Your task to perform on an android device: Add razer naga to the cart on amazon.com, then select checkout. Image 0: 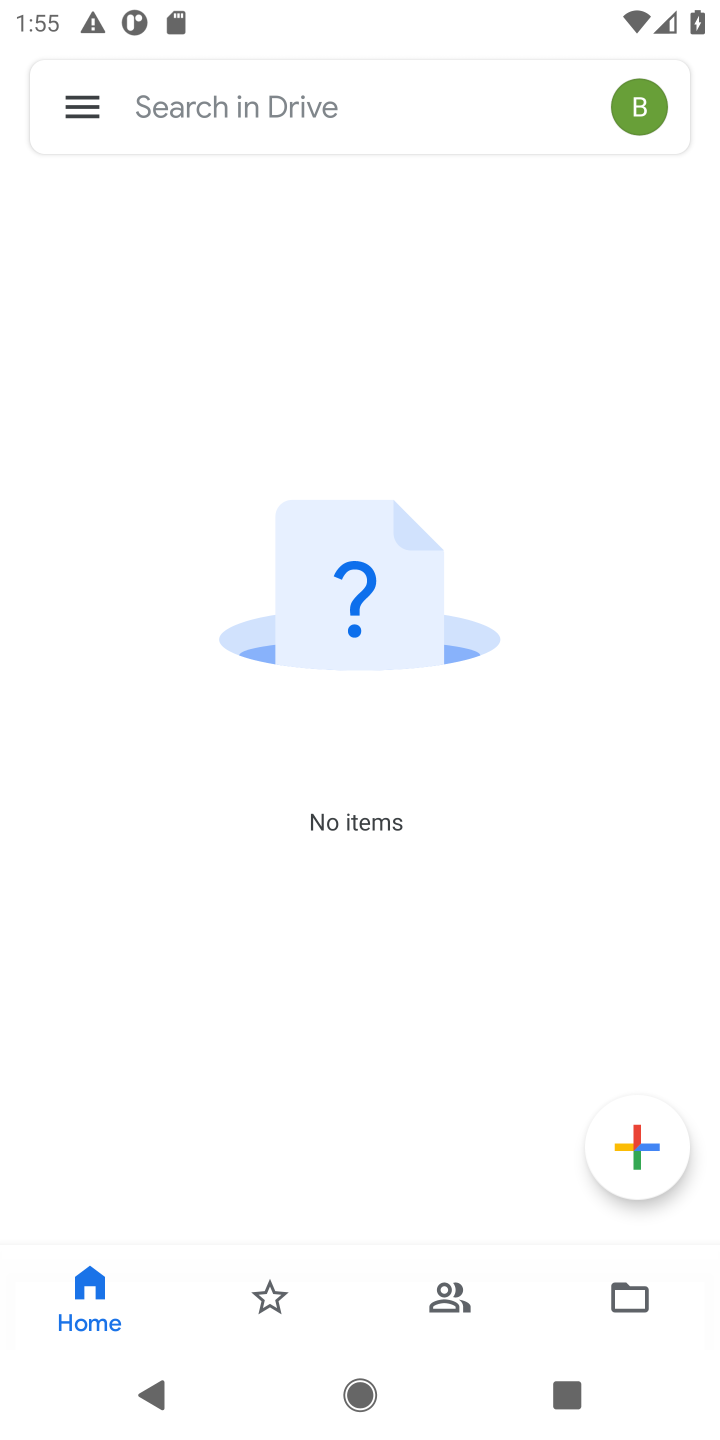
Step 0: press home button
Your task to perform on an android device: Add razer naga to the cart on amazon.com, then select checkout. Image 1: 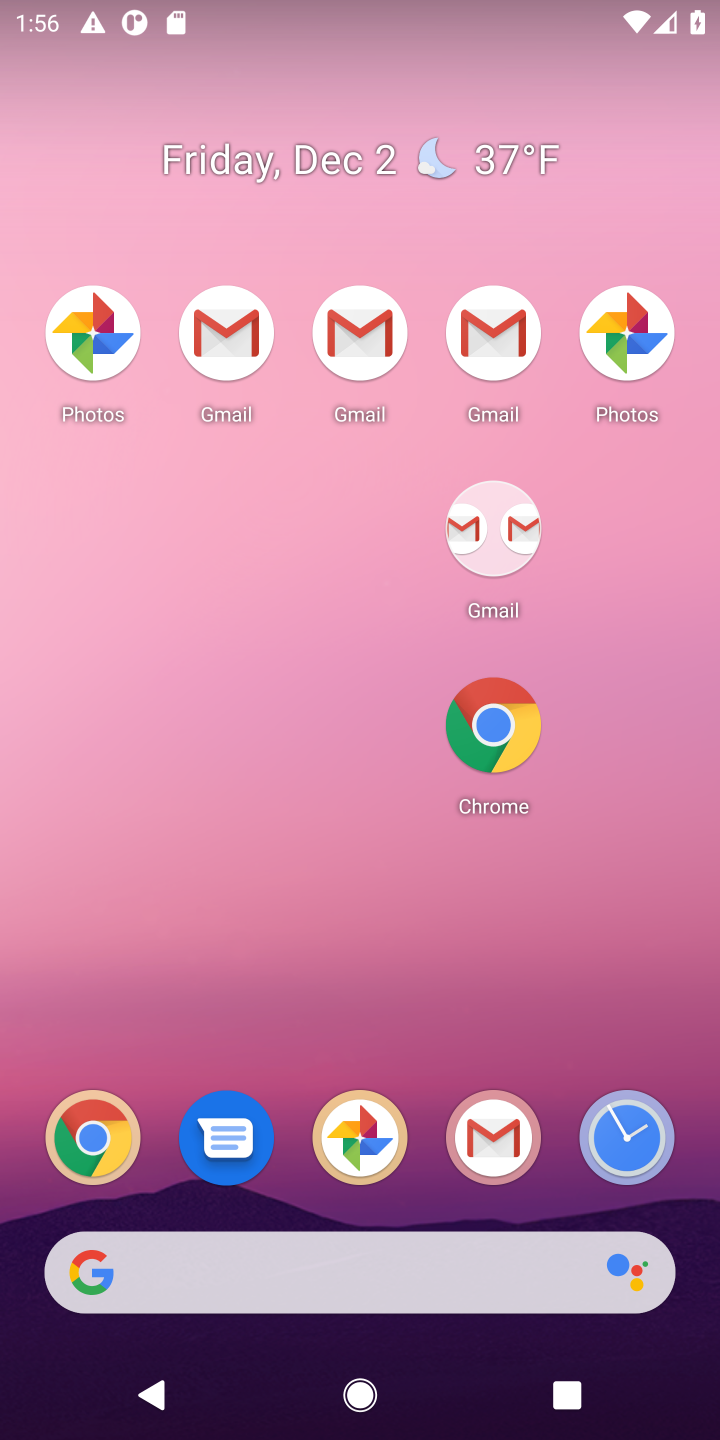
Step 1: drag from (352, 1000) to (577, 54)
Your task to perform on an android device: Add razer naga to the cart on amazon.com, then select checkout. Image 2: 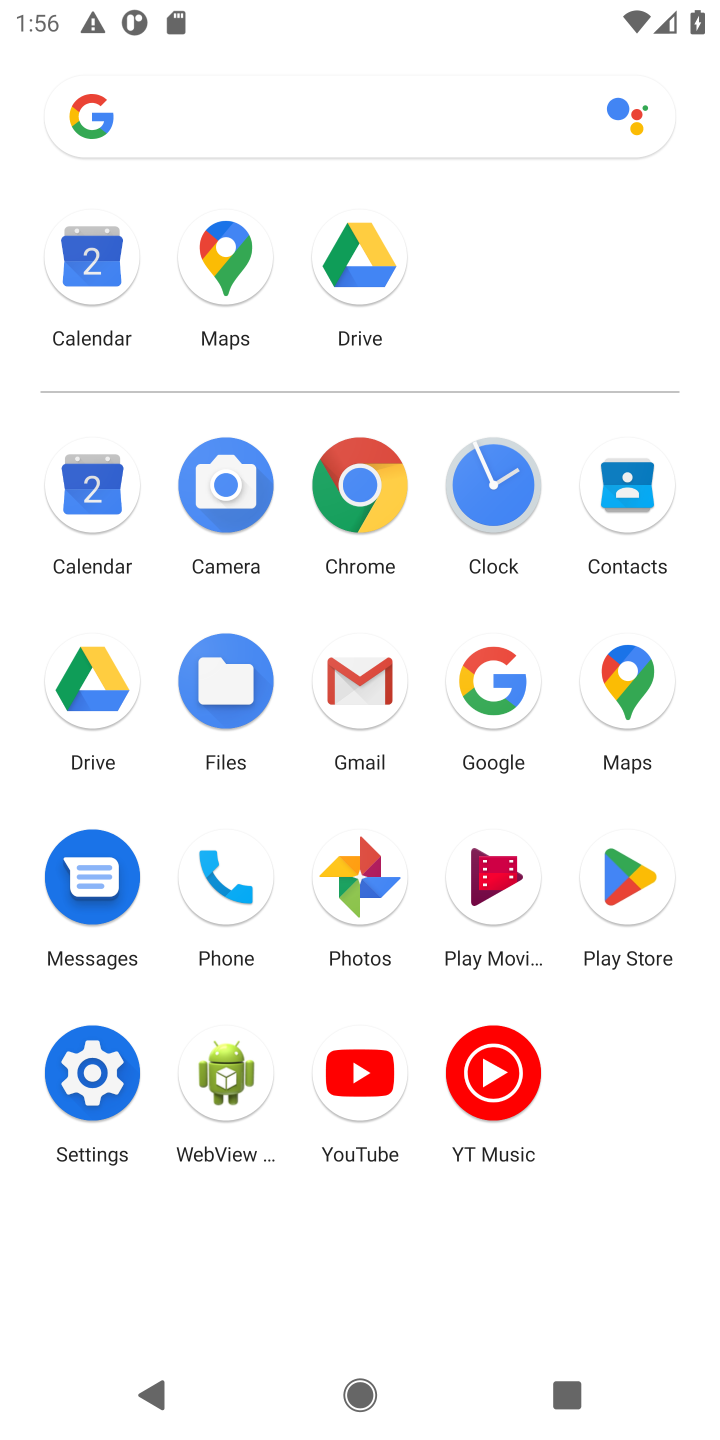
Step 2: click (514, 718)
Your task to perform on an android device: Add razer naga to the cart on amazon.com, then select checkout. Image 3: 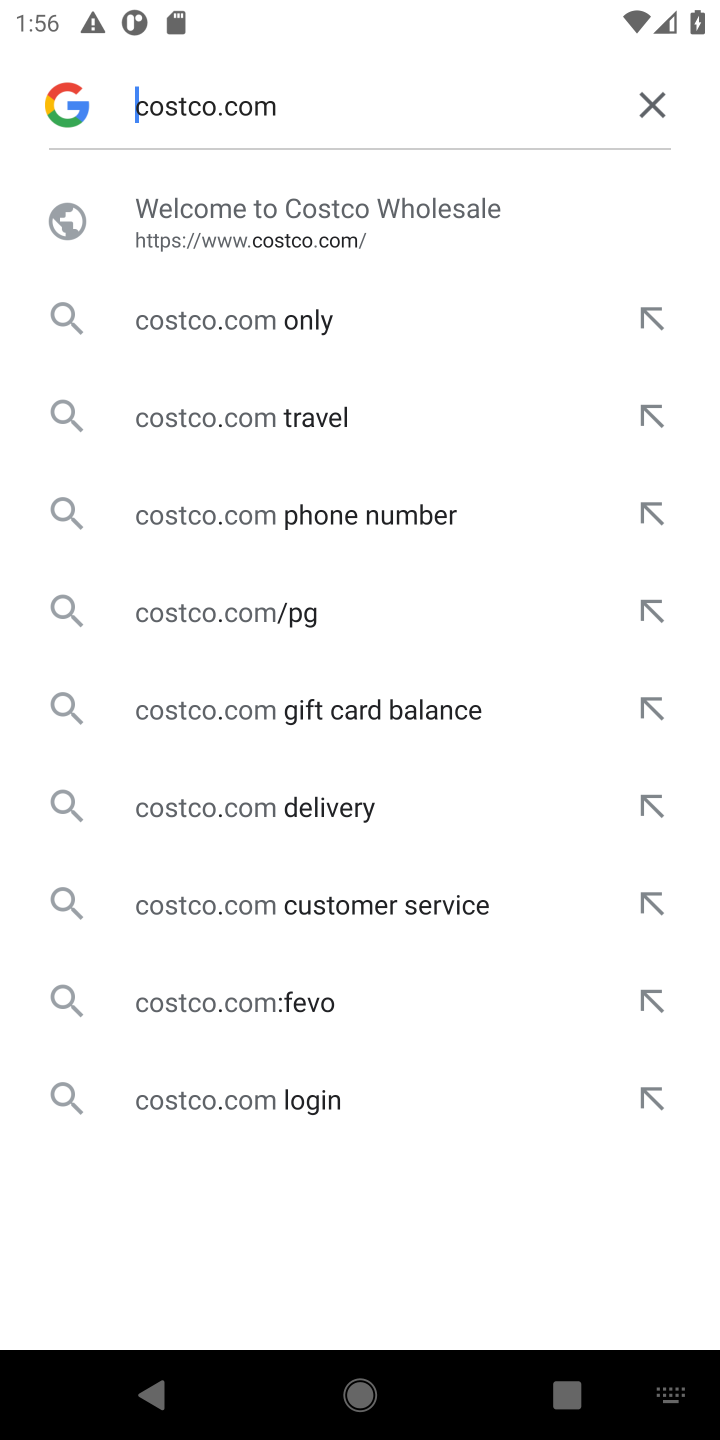
Step 3: click (656, 96)
Your task to perform on an android device: Add razer naga to the cart on amazon.com, then select checkout. Image 4: 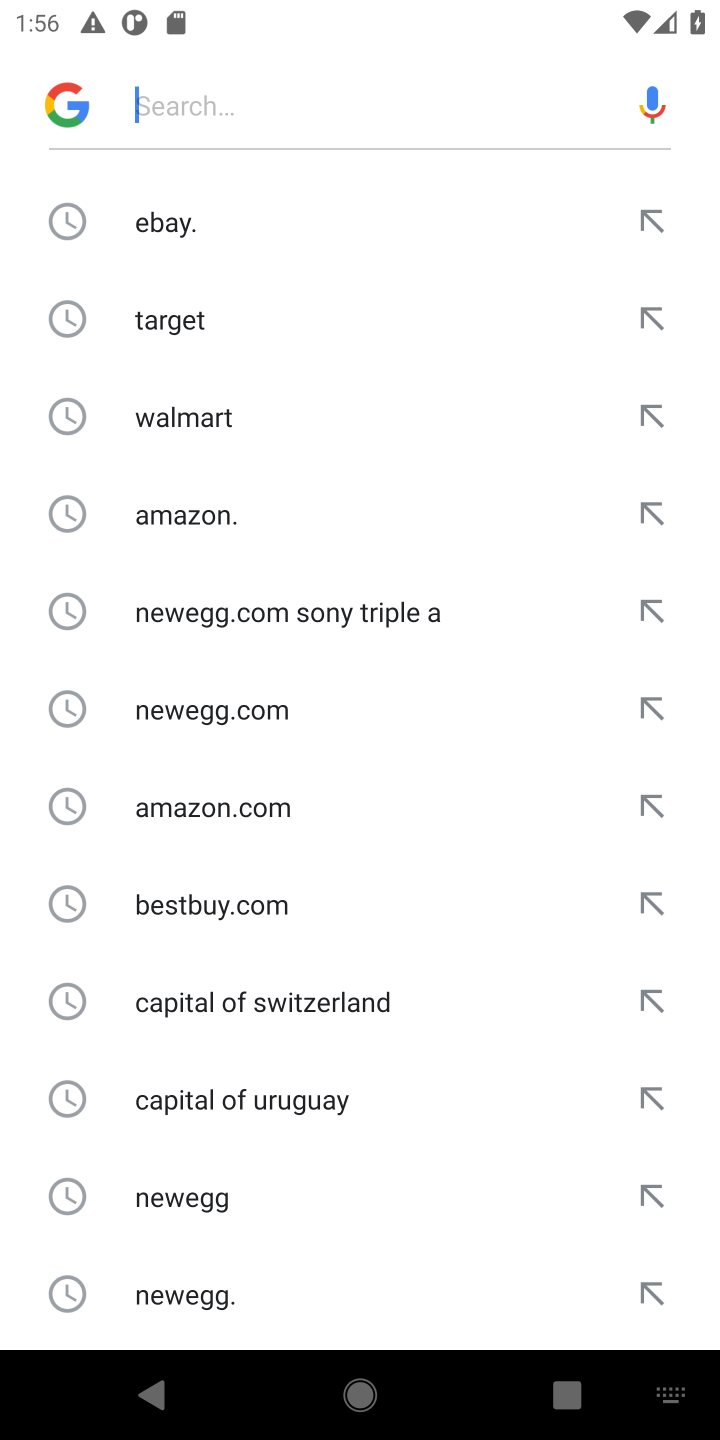
Step 4: click (215, 515)
Your task to perform on an android device: Add razer naga to the cart on amazon.com, then select checkout. Image 5: 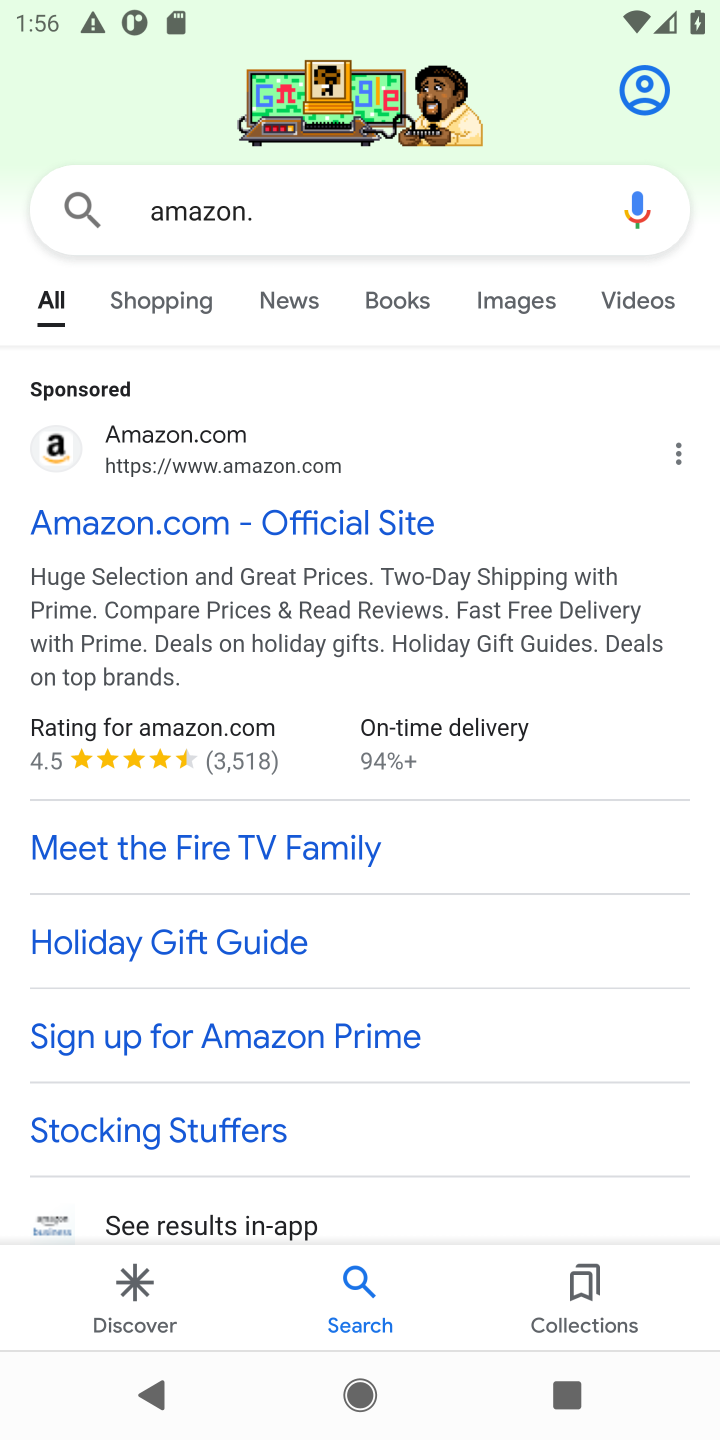
Step 5: click (263, 513)
Your task to perform on an android device: Add razer naga to the cart on amazon.com, then select checkout. Image 6: 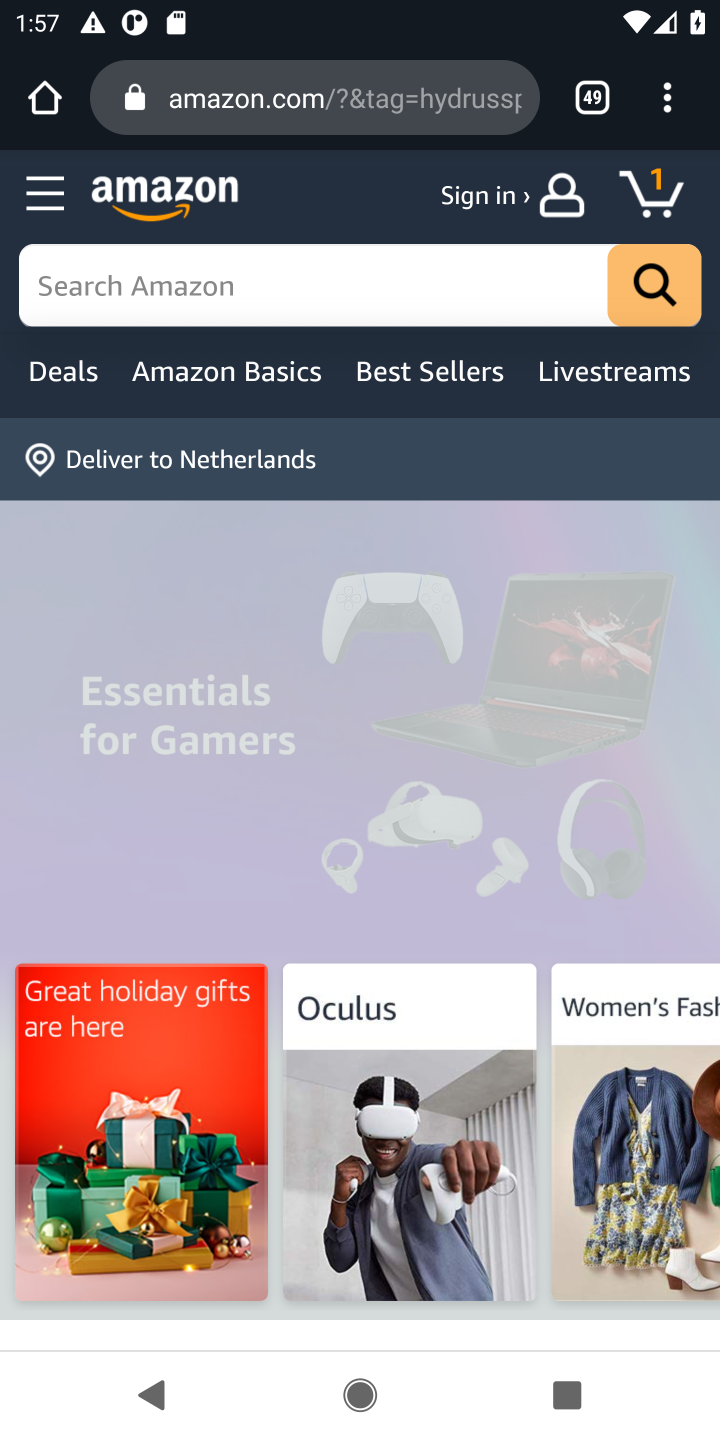
Step 6: click (400, 299)
Your task to perform on an android device: Add razer naga to the cart on amazon.com, then select checkout. Image 7: 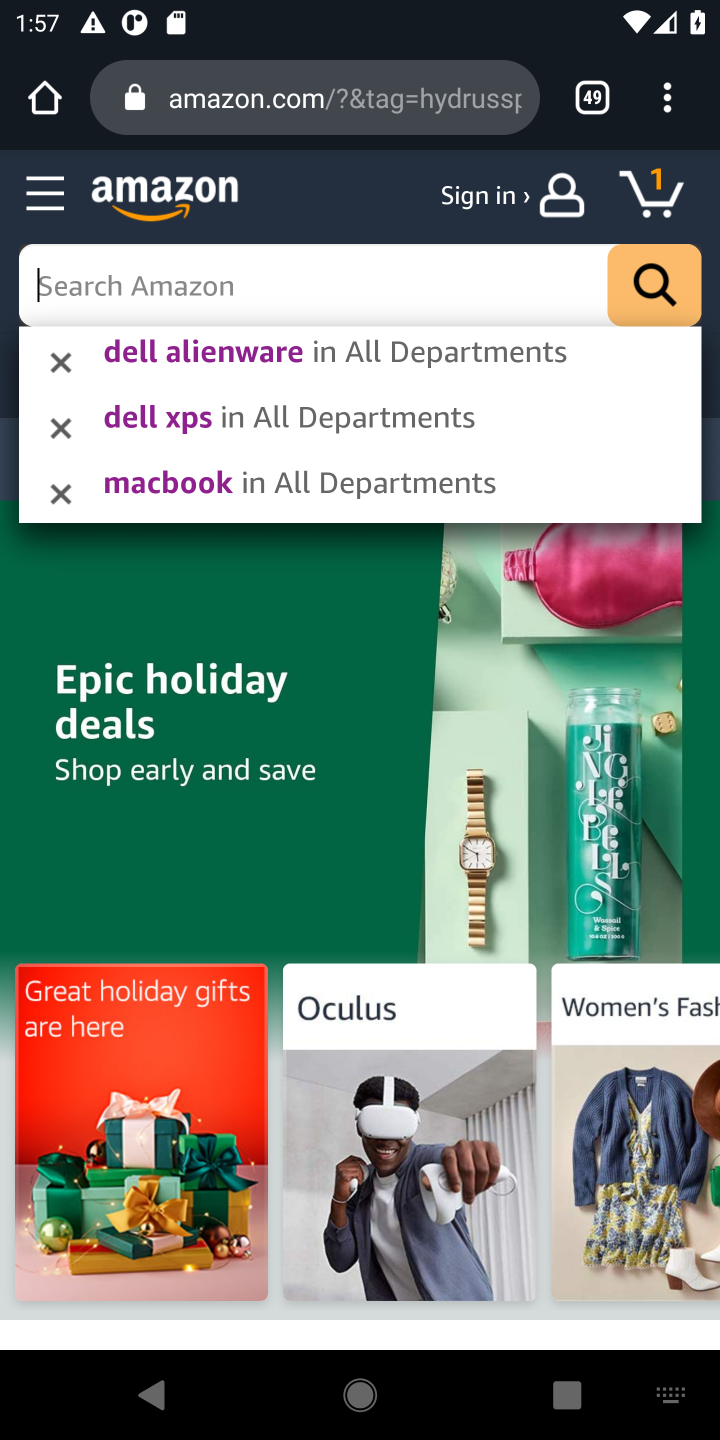
Step 7: type "razer naga"
Your task to perform on an android device: Add razer naga to the cart on amazon.com, then select checkout. Image 8: 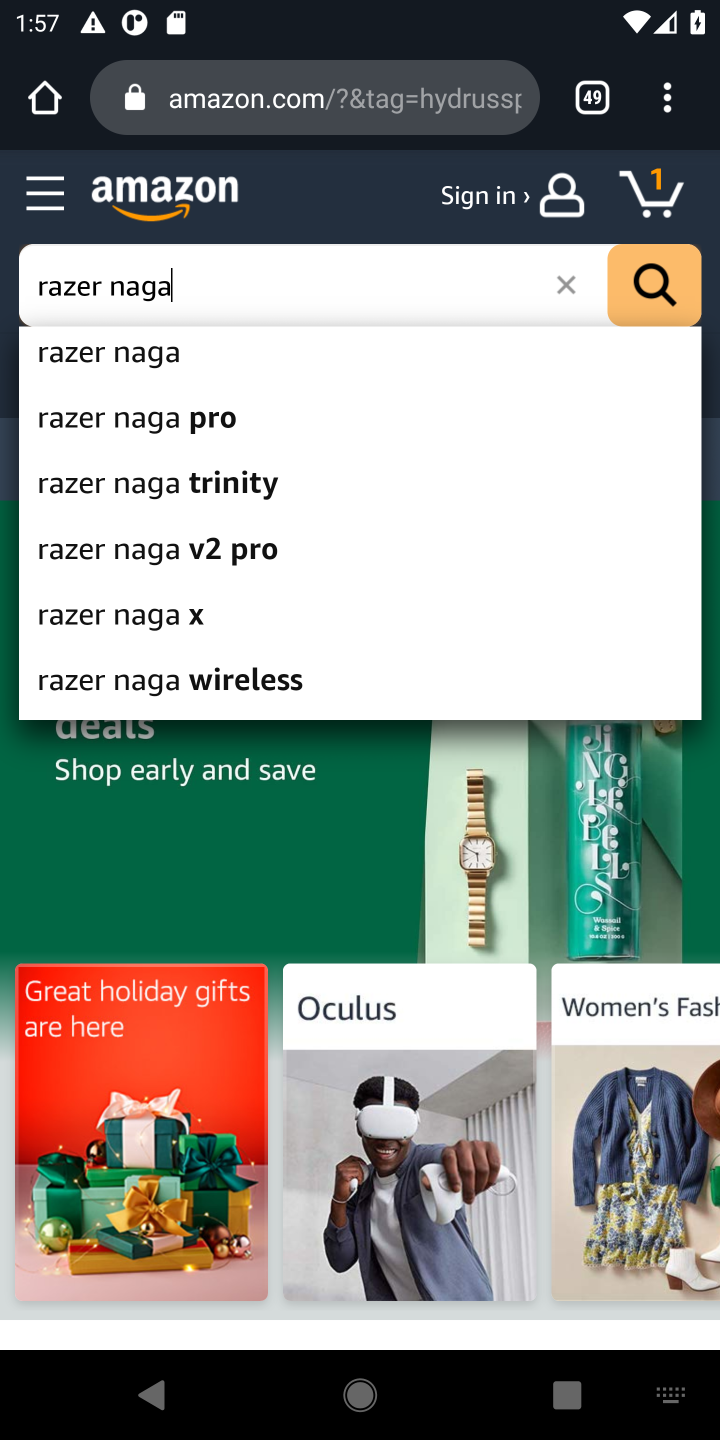
Step 8: click (215, 351)
Your task to perform on an android device: Add razer naga to the cart on amazon.com, then select checkout. Image 9: 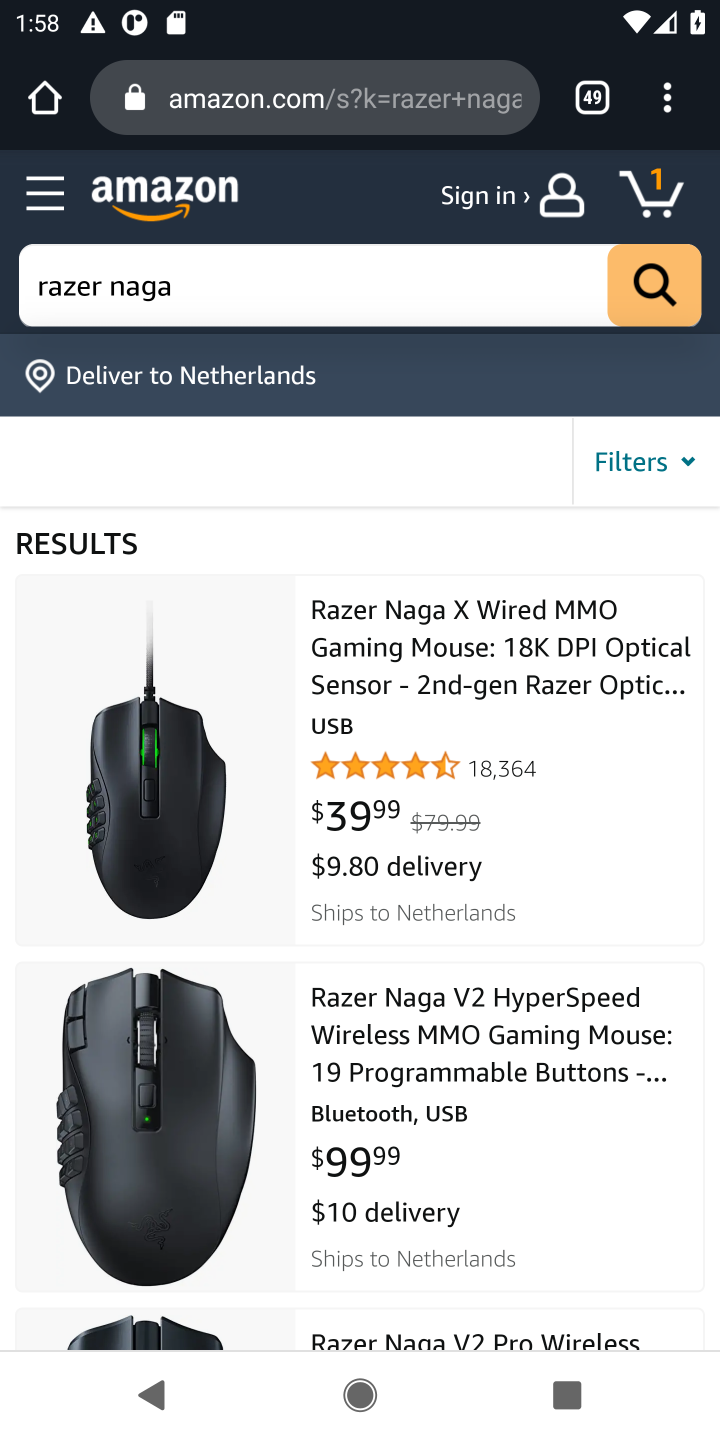
Step 9: click (500, 651)
Your task to perform on an android device: Add razer naga to the cart on amazon.com, then select checkout. Image 10: 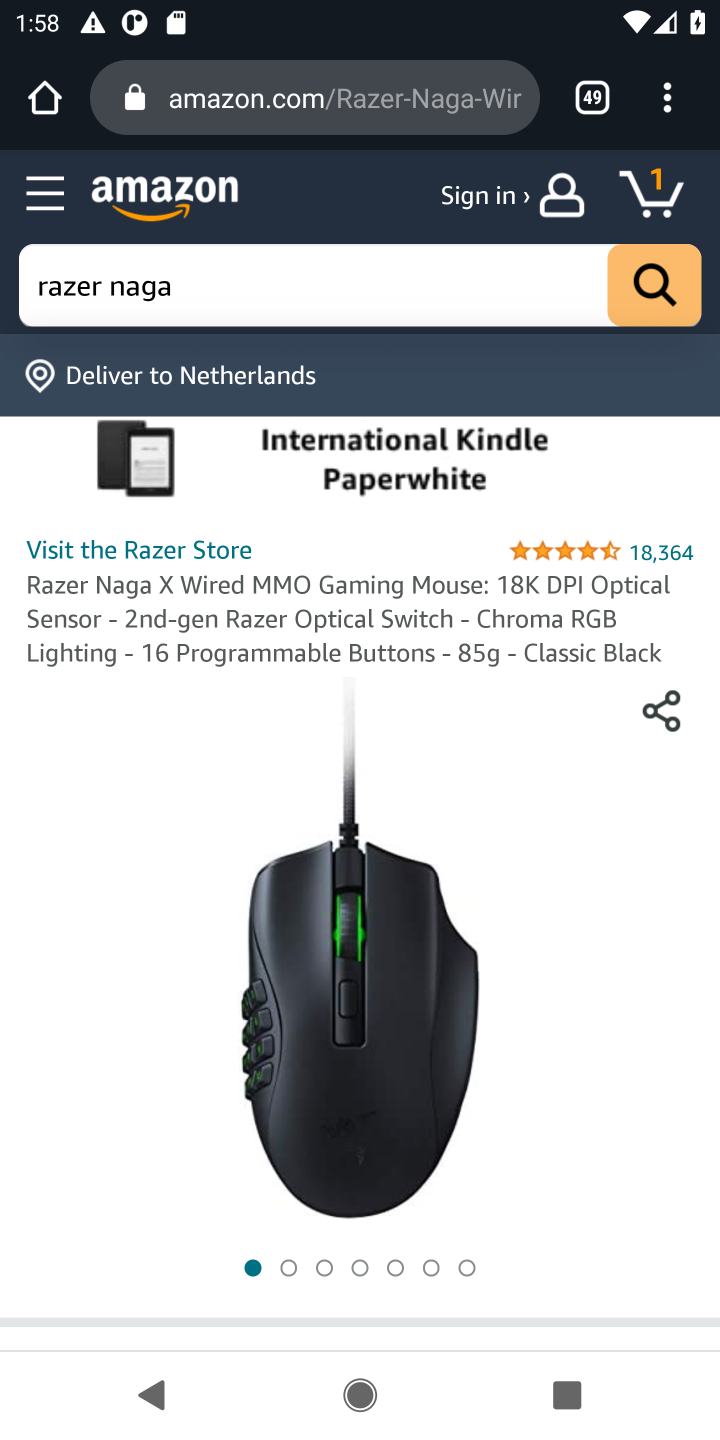
Step 10: drag from (478, 1050) to (500, 715)
Your task to perform on an android device: Add razer naga to the cart on amazon.com, then select checkout. Image 11: 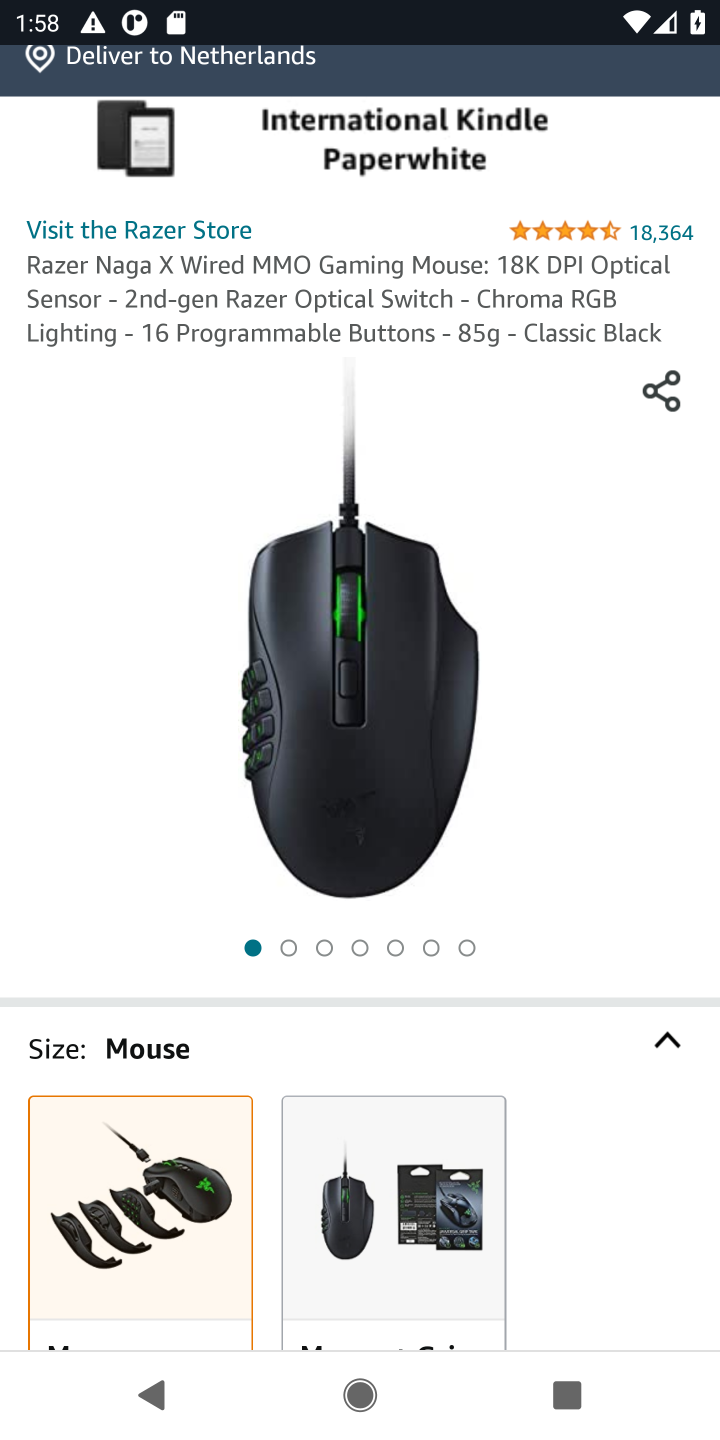
Step 11: drag from (501, 901) to (513, 641)
Your task to perform on an android device: Add razer naga to the cart on amazon.com, then select checkout. Image 12: 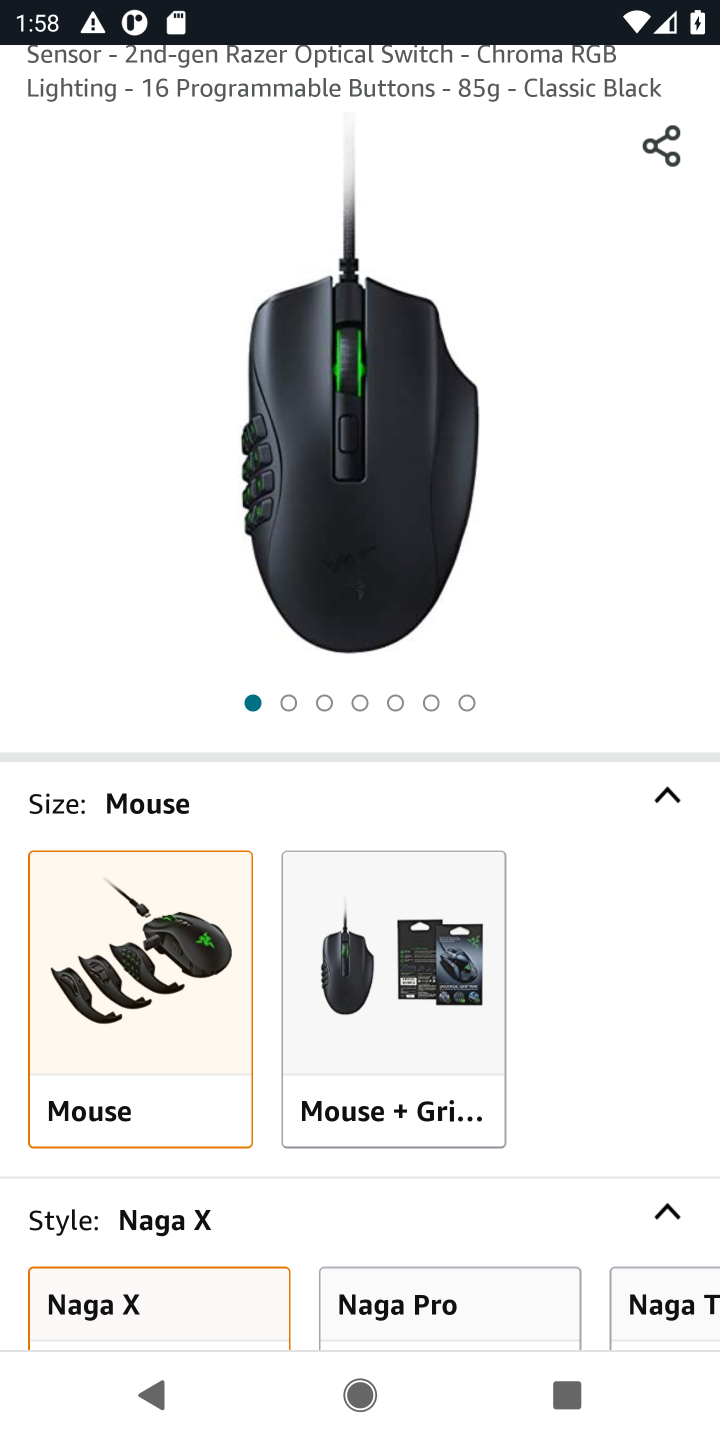
Step 12: drag from (596, 945) to (624, 302)
Your task to perform on an android device: Add razer naga to the cart on amazon.com, then select checkout. Image 13: 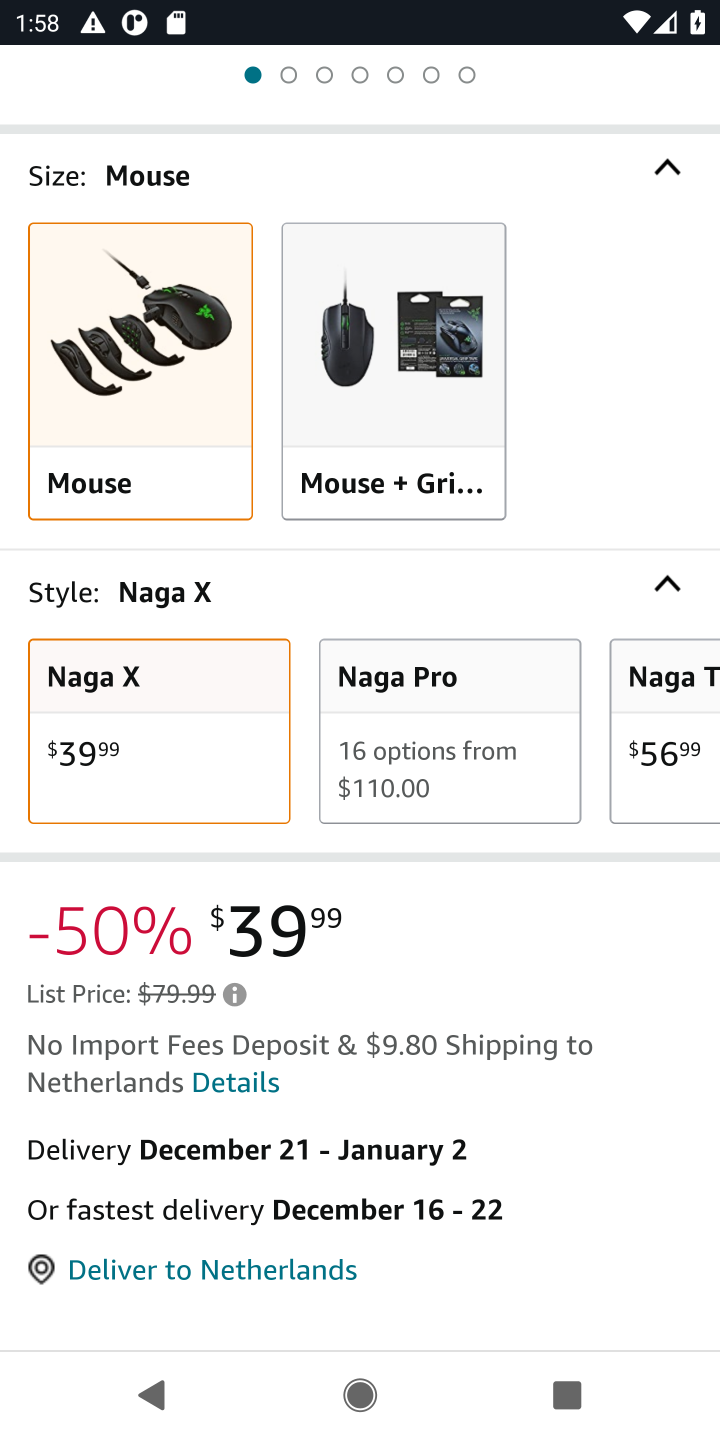
Step 13: drag from (573, 911) to (573, 595)
Your task to perform on an android device: Add razer naga to the cart on amazon.com, then select checkout. Image 14: 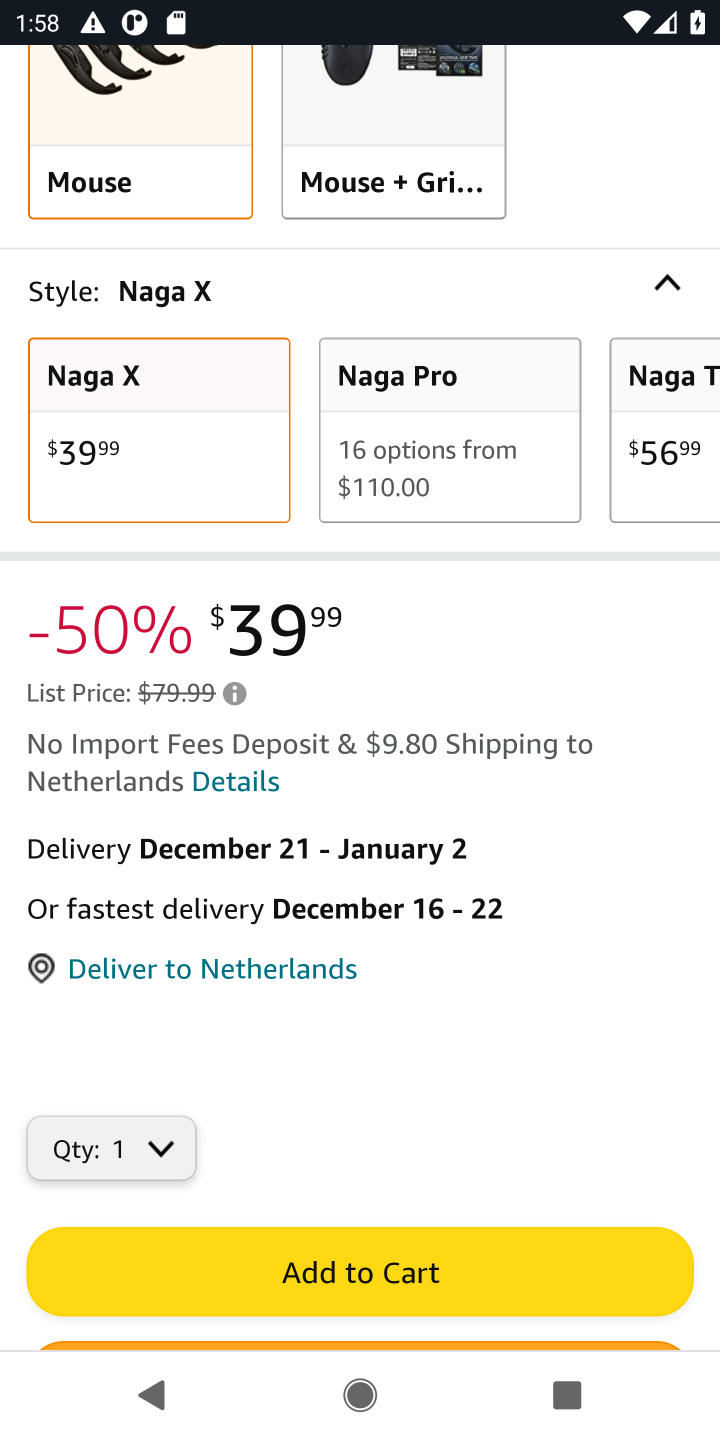
Step 14: click (490, 1279)
Your task to perform on an android device: Add razer naga to the cart on amazon.com, then select checkout. Image 15: 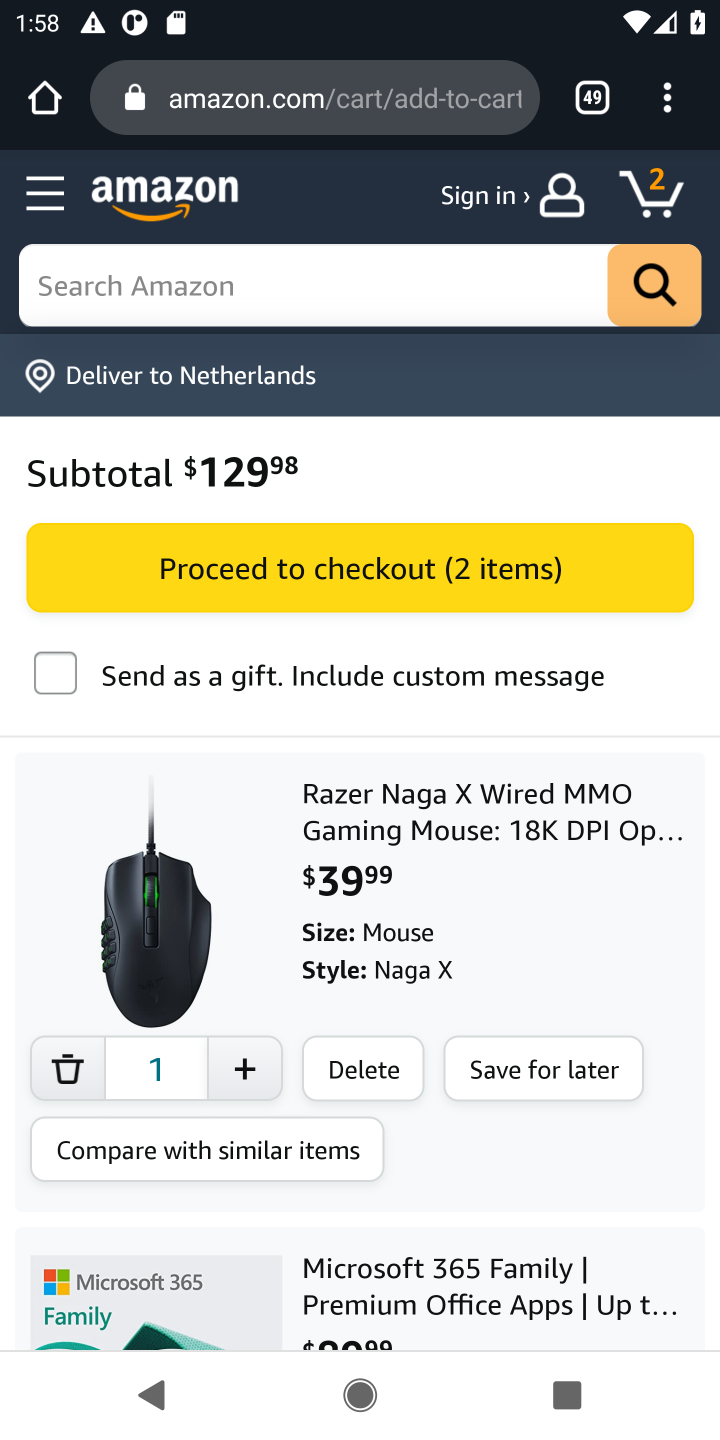
Step 15: click (472, 545)
Your task to perform on an android device: Add razer naga to the cart on amazon.com, then select checkout. Image 16: 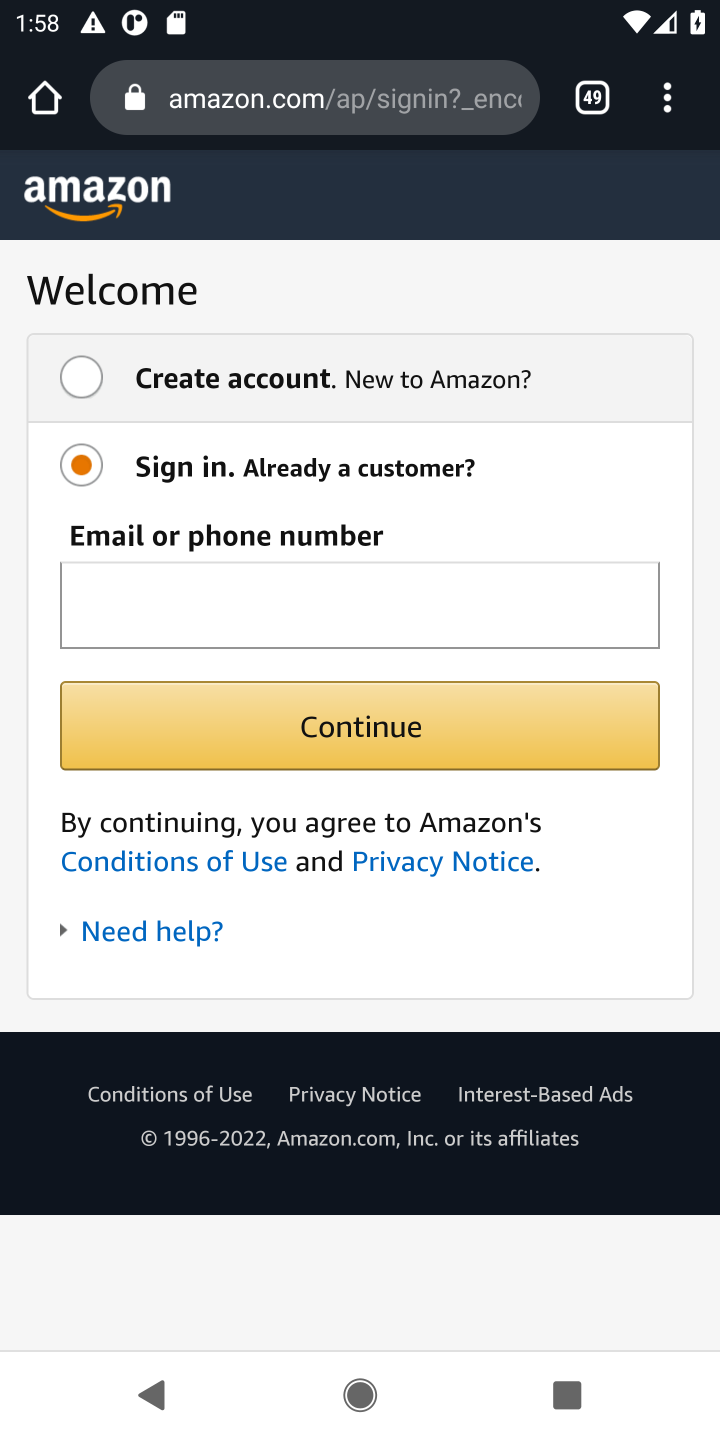
Step 16: task complete